Your task to perform on an android device: Show me productivity apps on the Play Store Image 0: 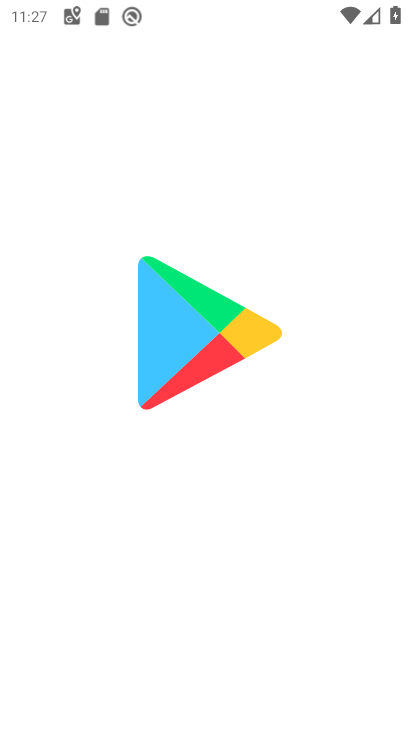
Step 0: click (272, 582)
Your task to perform on an android device: Show me productivity apps on the Play Store Image 1: 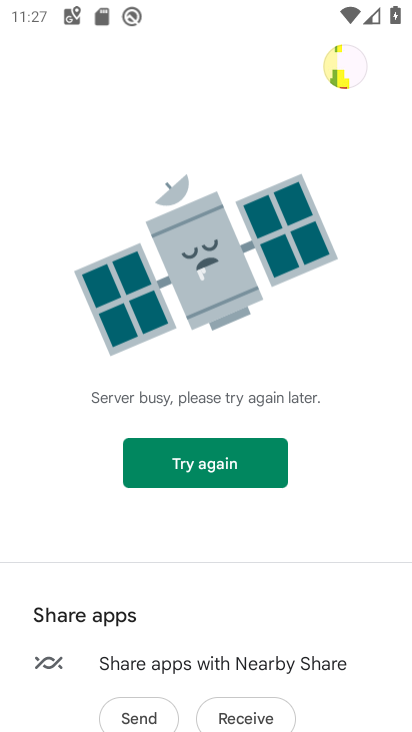
Step 1: press home button
Your task to perform on an android device: Show me productivity apps on the Play Store Image 2: 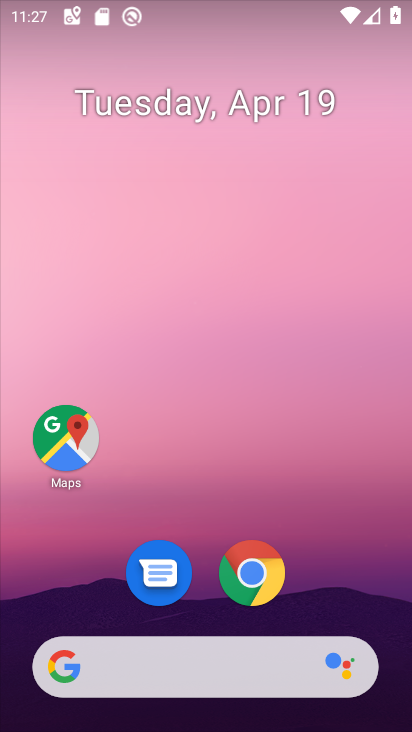
Step 2: drag from (321, 559) to (321, 197)
Your task to perform on an android device: Show me productivity apps on the Play Store Image 3: 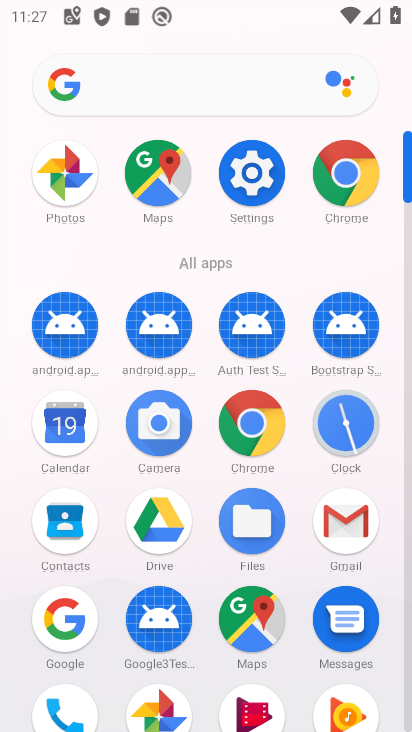
Step 3: drag from (309, 620) to (329, 248)
Your task to perform on an android device: Show me productivity apps on the Play Store Image 4: 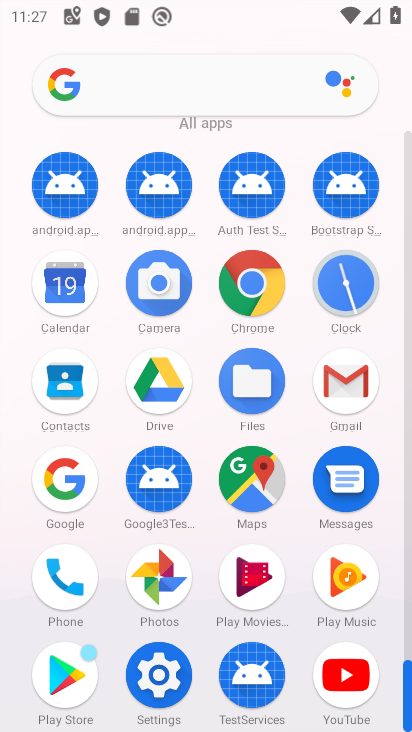
Step 4: click (45, 673)
Your task to perform on an android device: Show me productivity apps on the Play Store Image 5: 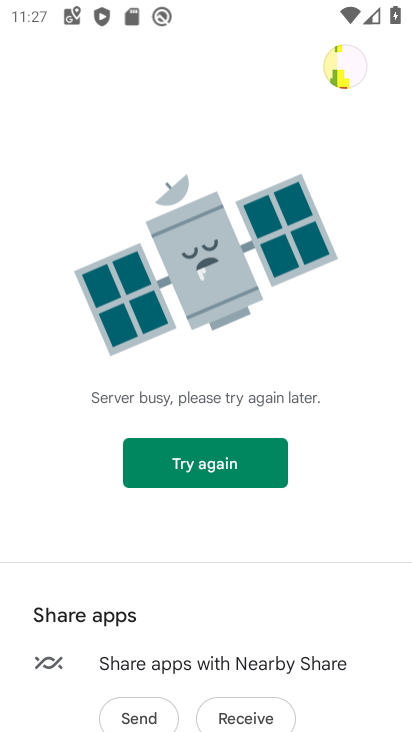
Step 5: click (215, 470)
Your task to perform on an android device: Show me productivity apps on the Play Store Image 6: 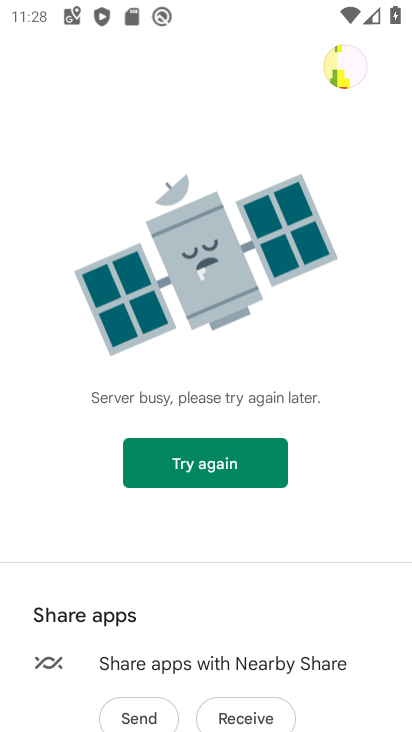
Step 6: task complete